Your task to perform on an android device: open a bookmark in the chrome app Image 0: 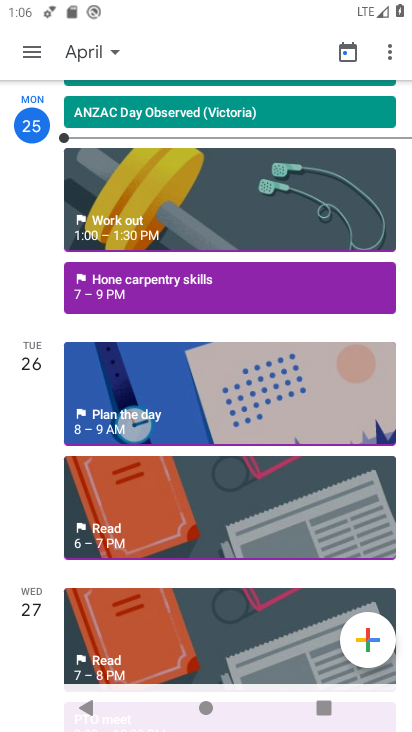
Step 0: press home button
Your task to perform on an android device: open a bookmark in the chrome app Image 1: 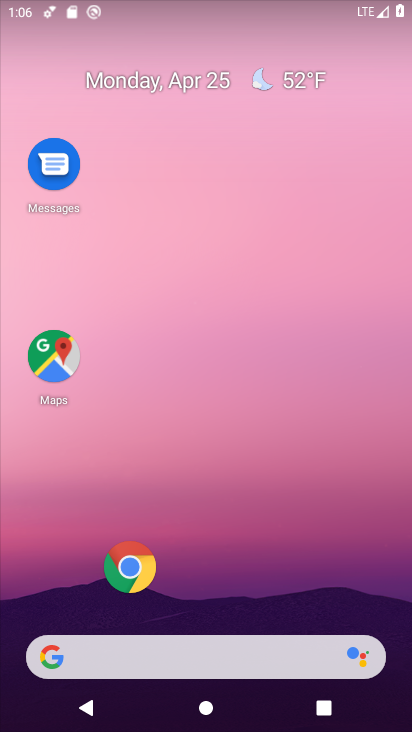
Step 1: drag from (258, 587) to (218, 11)
Your task to perform on an android device: open a bookmark in the chrome app Image 2: 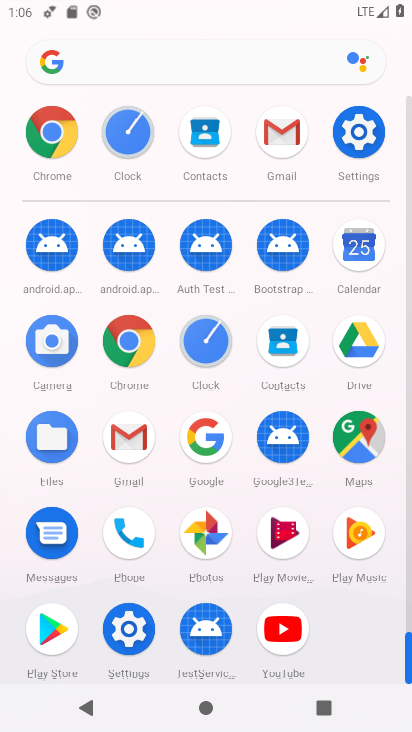
Step 2: click (73, 153)
Your task to perform on an android device: open a bookmark in the chrome app Image 3: 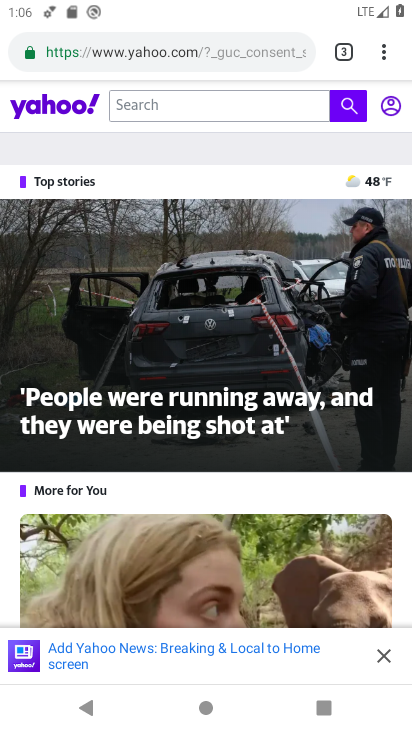
Step 3: click (379, 51)
Your task to perform on an android device: open a bookmark in the chrome app Image 4: 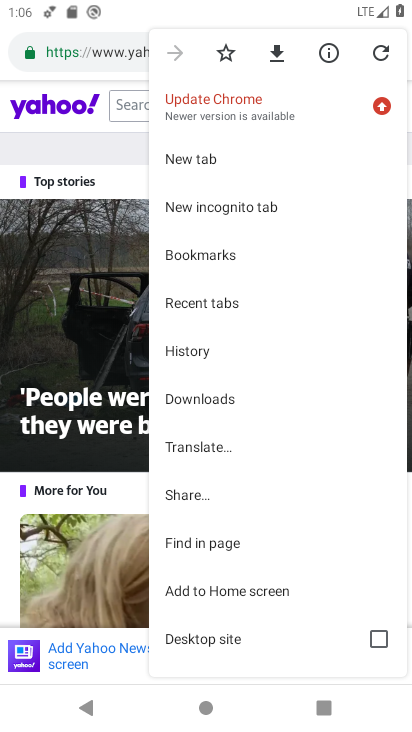
Step 4: click (264, 255)
Your task to perform on an android device: open a bookmark in the chrome app Image 5: 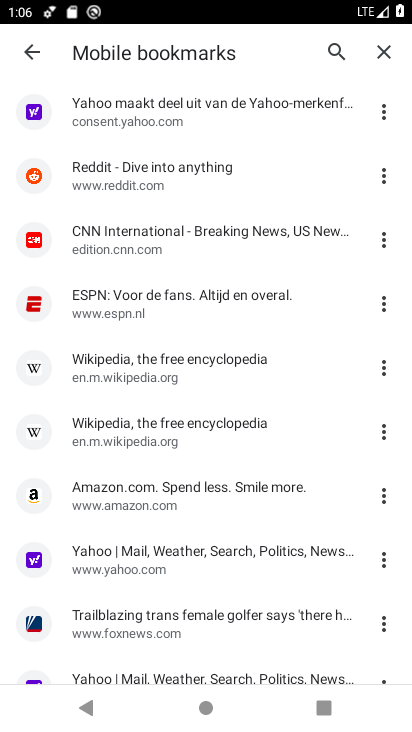
Step 5: click (172, 634)
Your task to perform on an android device: open a bookmark in the chrome app Image 6: 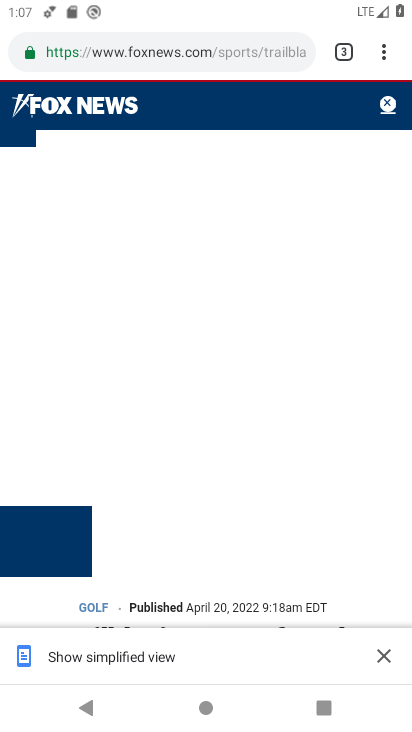
Step 6: task complete